Your task to perform on an android device: turn vacation reply on in the gmail app Image 0: 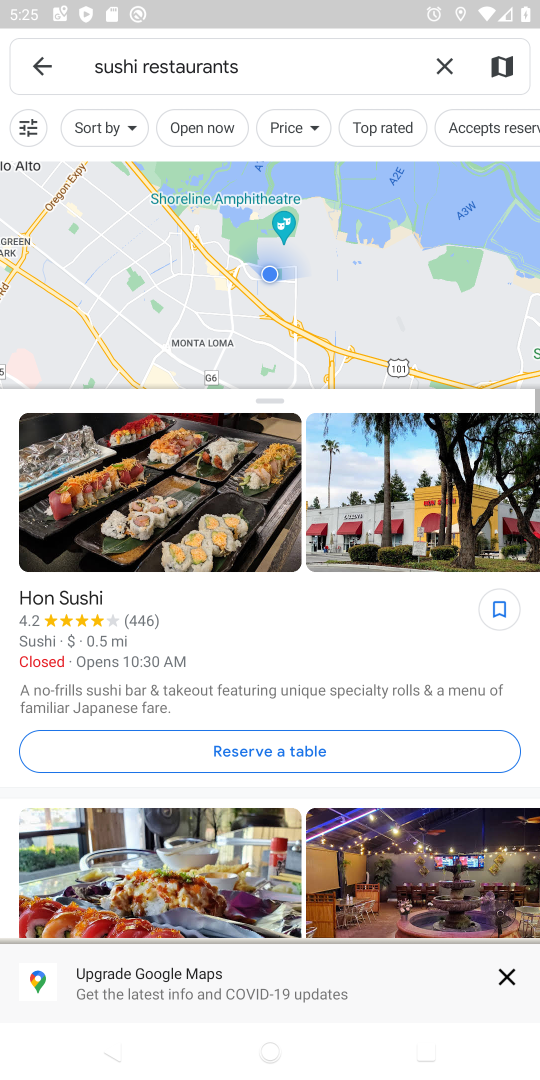
Step 0: press home button
Your task to perform on an android device: turn vacation reply on in the gmail app Image 1: 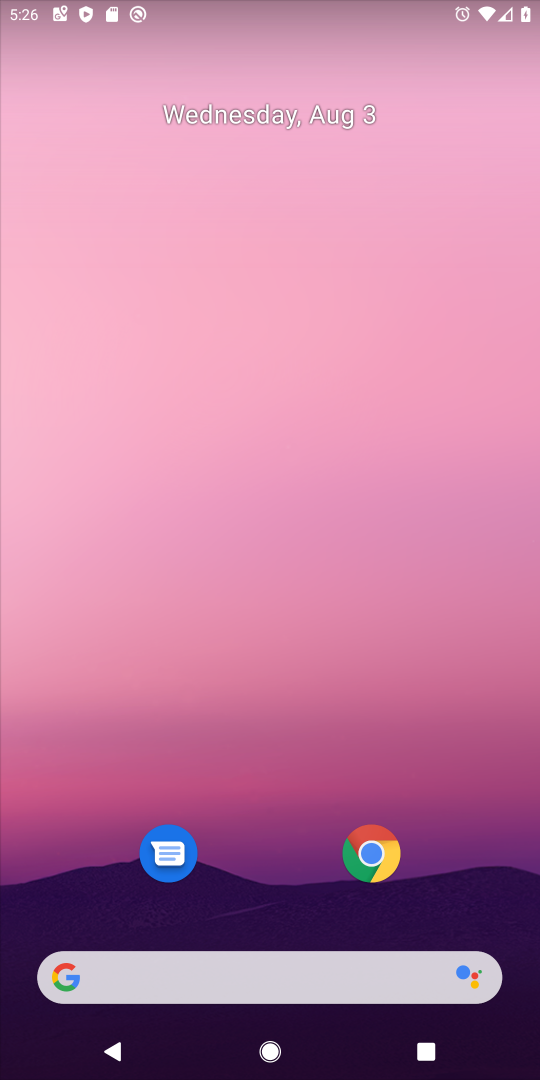
Step 1: drag from (493, 874) to (355, 184)
Your task to perform on an android device: turn vacation reply on in the gmail app Image 2: 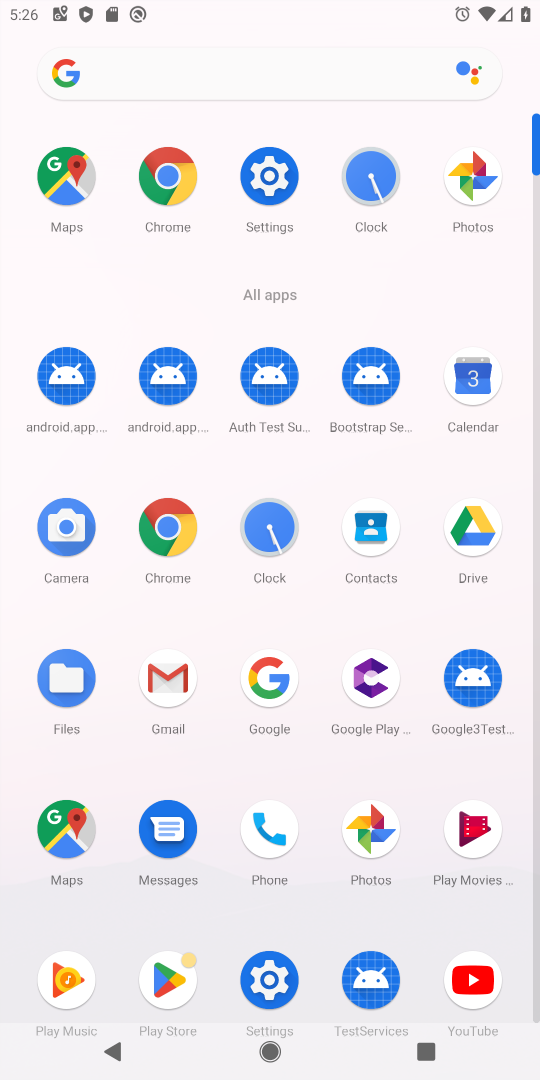
Step 2: click (172, 680)
Your task to perform on an android device: turn vacation reply on in the gmail app Image 3: 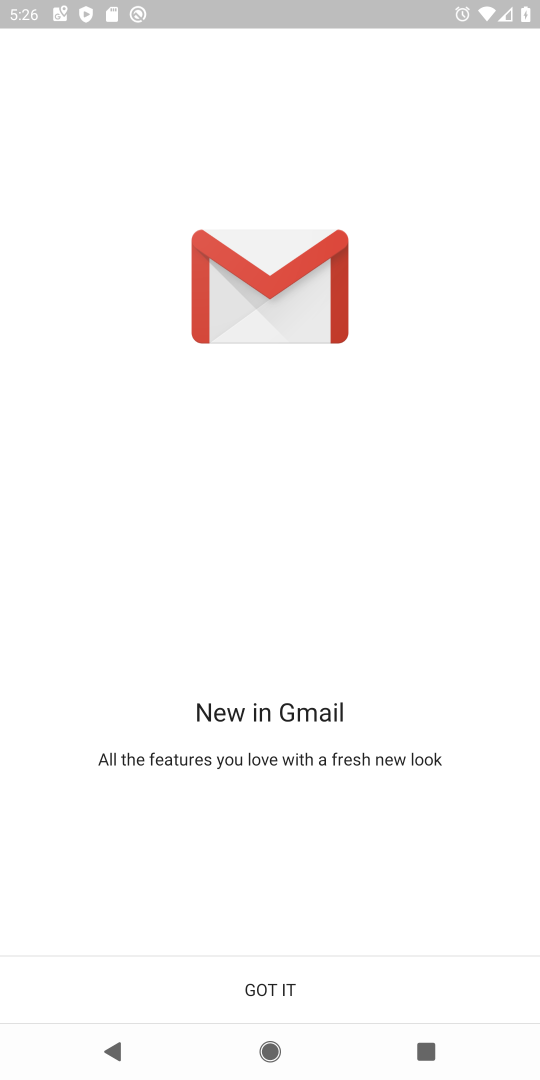
Step 3: click (323, 982)
Your task to perform on an android device: turn vacation reply on in the gmail app Image 4: 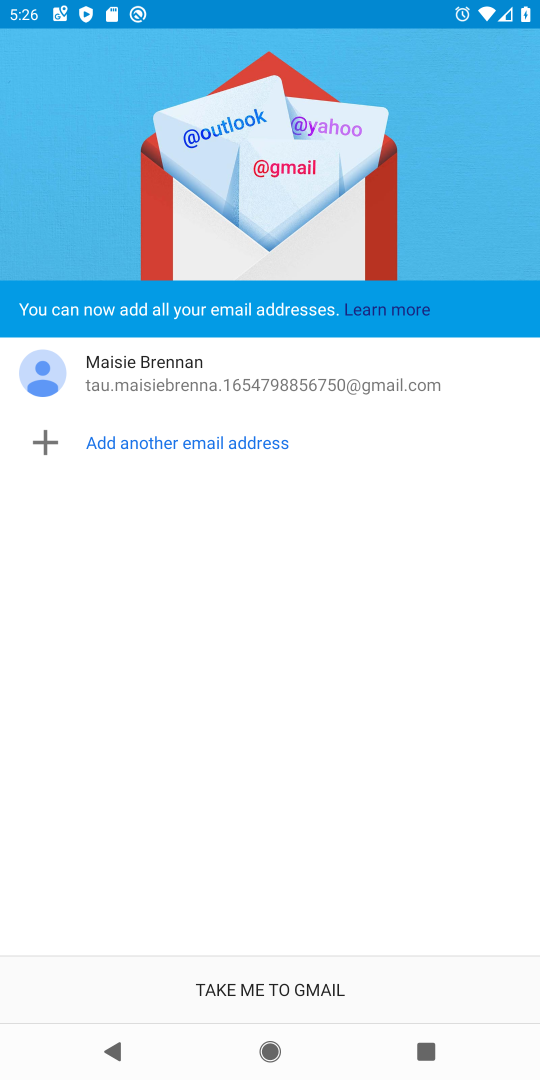
Step 4: click (311, 978)
Your task to perform on an android device: turn vacation reply on in the gmail app Image 5: 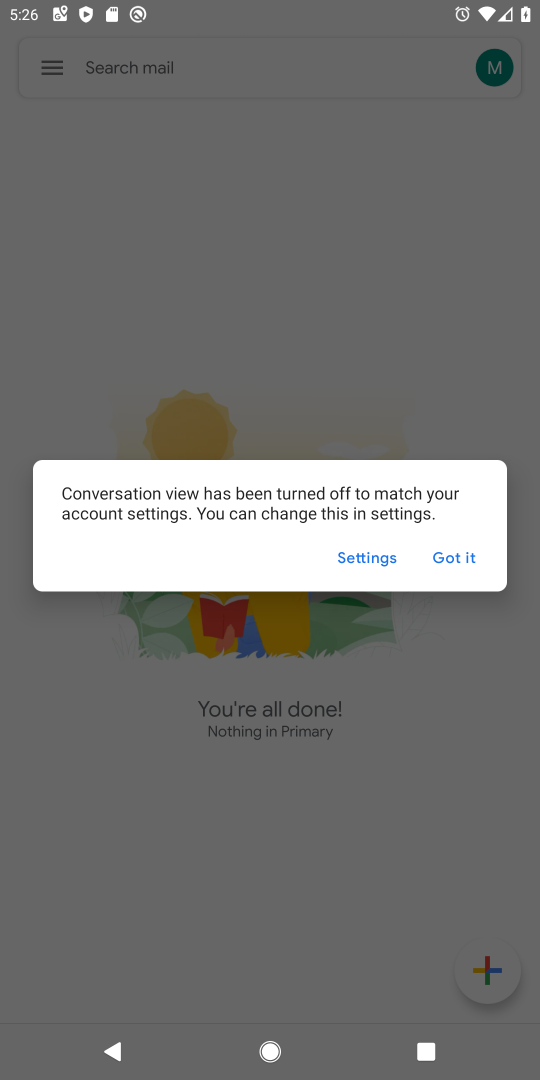
Step 5: click (446, 554)
Your task to perform on an android device: turn vacation reply on in the gmail app Image 6: 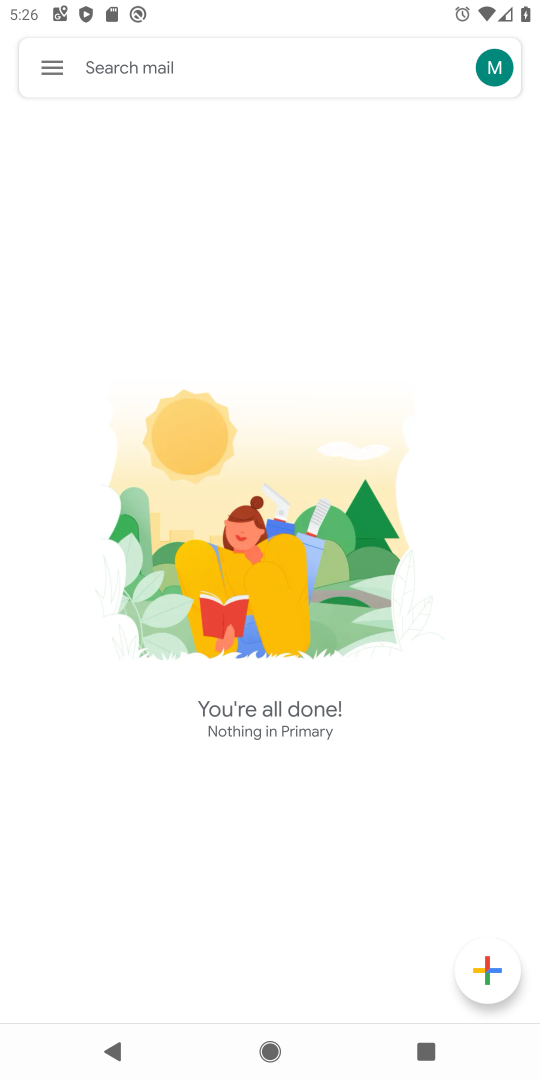
Step 6: click (36, 73)
Your task to perform on an android device: turn vacation reply on in the gmail app Image 7: 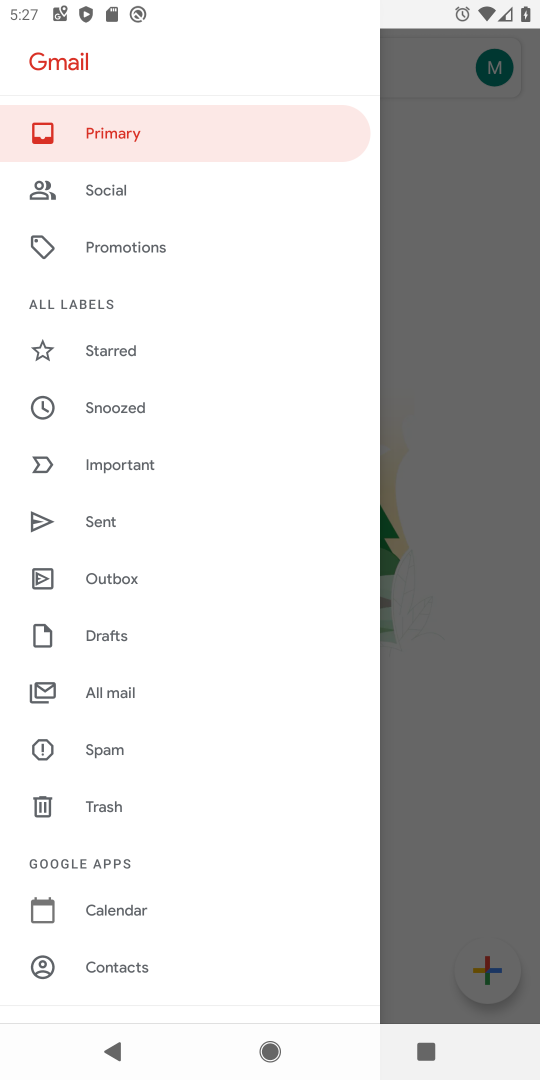
Step 7: drag from (158, 969) to (116, 593)
Your task to perform on an android device: turn vacation reply on in the gmail app Image 8: 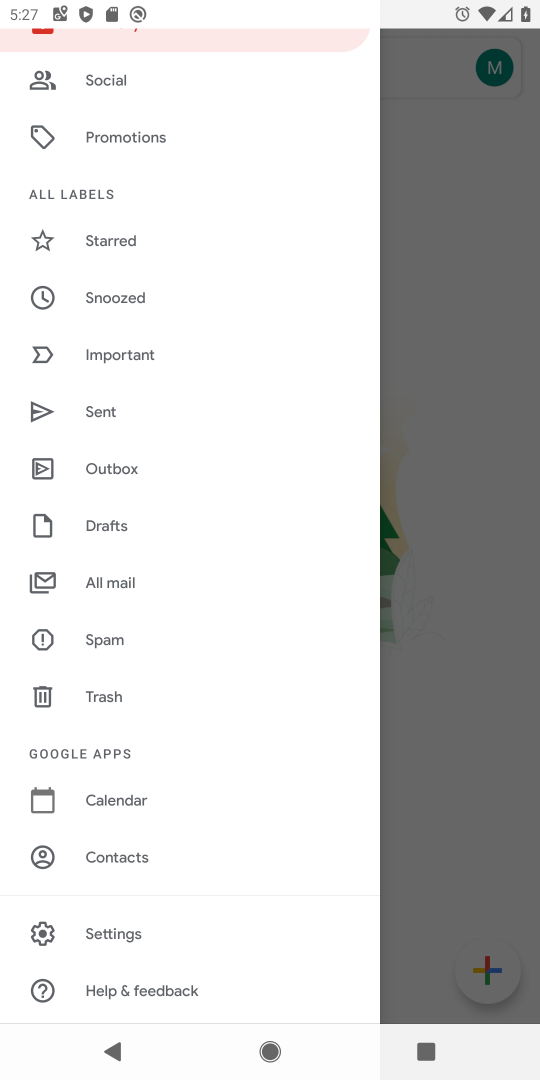
Step 8: click (127, 933)
Your task to perform on an android device: turn vacation reply on in the gmail app Image 9: 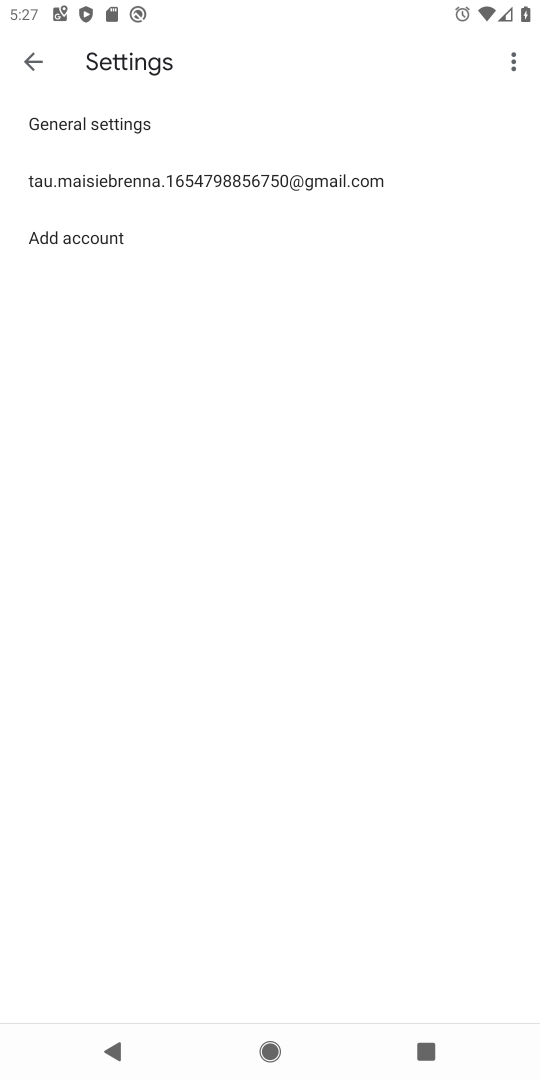
Step 9: click (257, 169)
Your task to perform on an android device: turn vacation reply on in the gmail app Image 10: 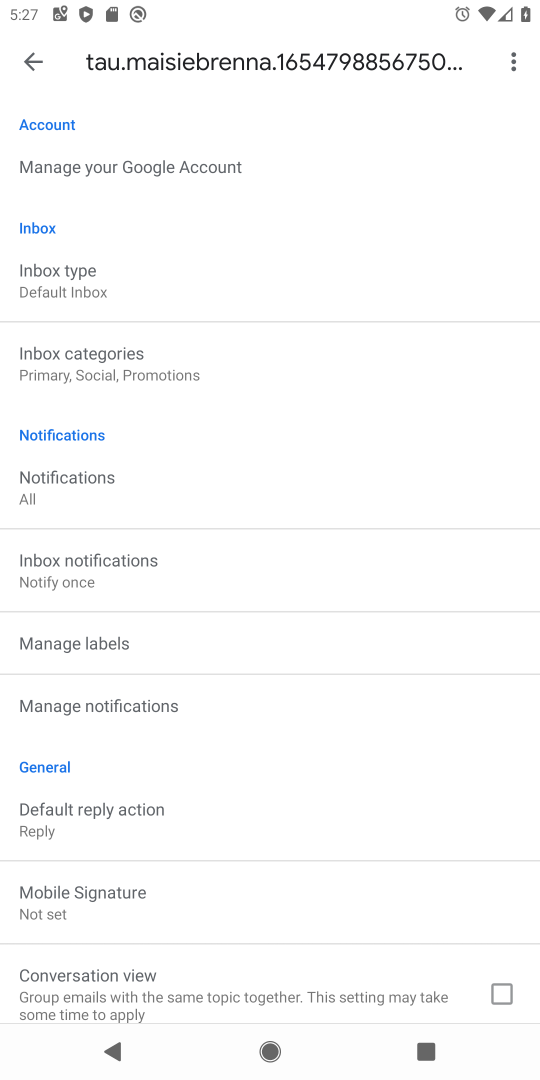
Step 10: task complete